Your task to perform on an android device: toggle translation in the chrome app Image 0: 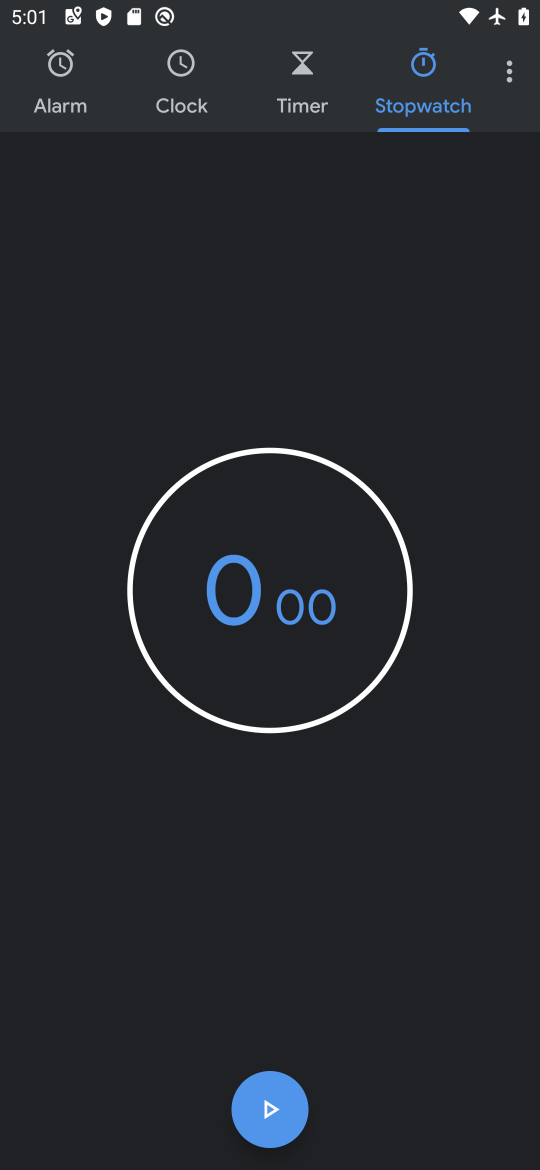
Step 0: press home button
Your task to perform on an android device: toggle translation in the chrome app Image 1: 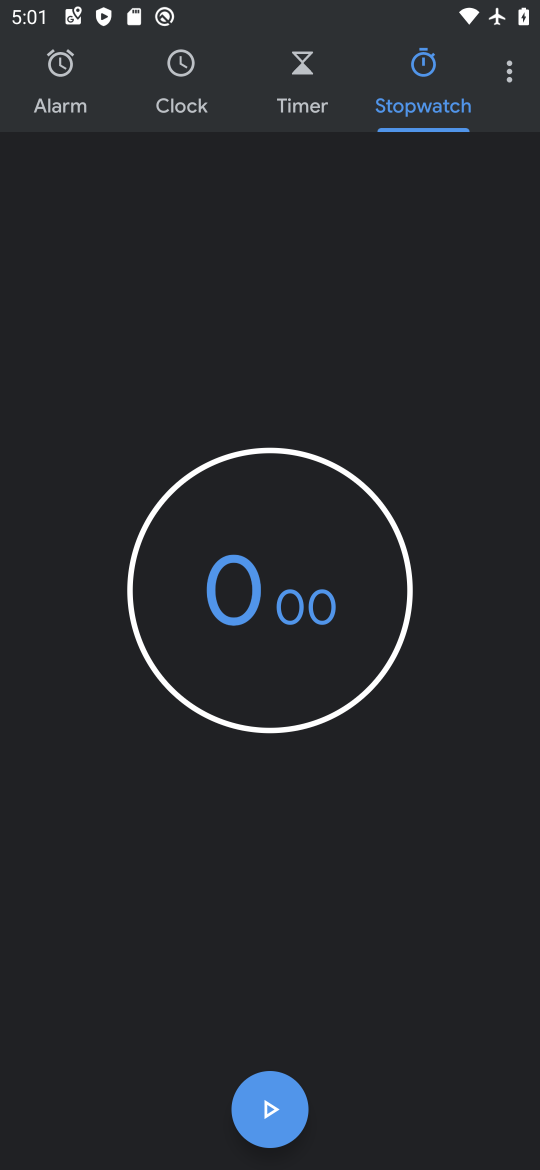
Step 1: press home button
Your task to perform on an android device: toggle translation in the chrome app Image 2: 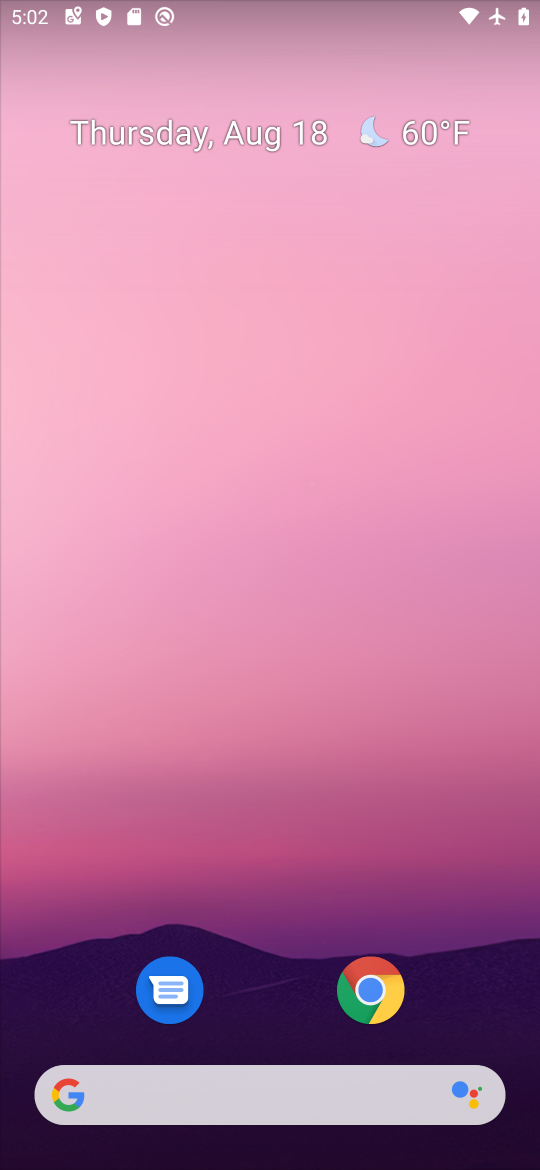
Step 2: drag from (246, 1023) to (358, 192)
Your task to perform on an android device: toggle translation in the chrome app Image 3: 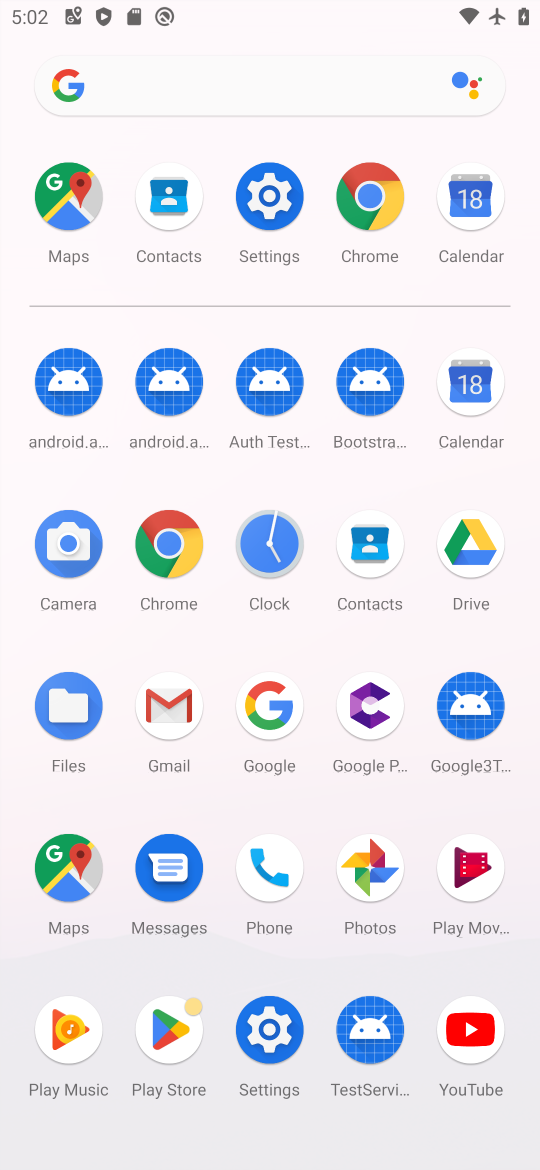
Step 3: click (170, 542)
Your task to perform on an android device: toggle translation in the chrome app Image 4: 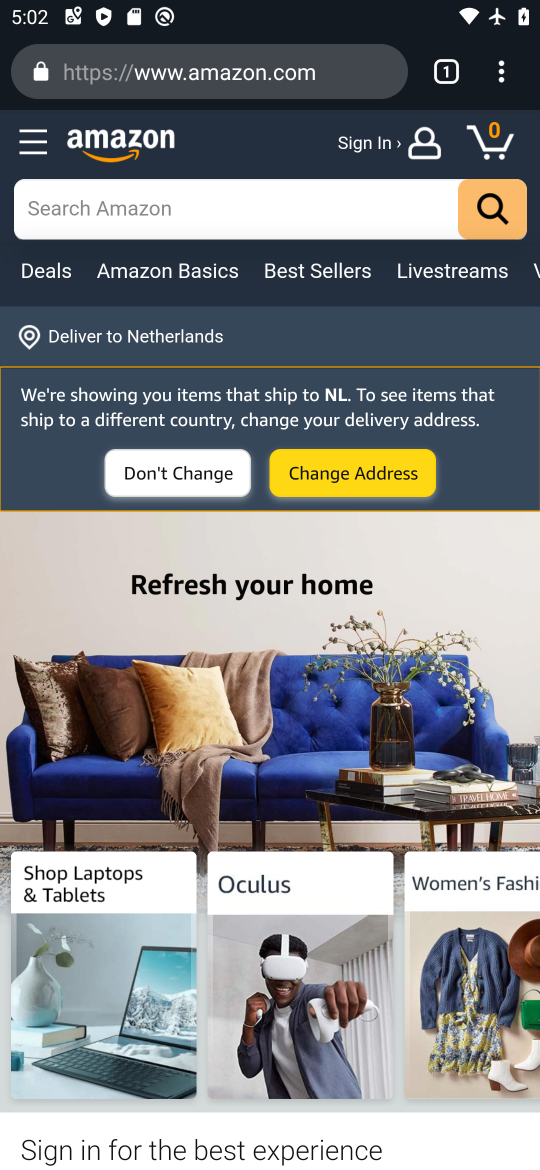
Step 4: click (499, 66)
Your task to perform on an android device: toggle translation in the chrome app Image 5: 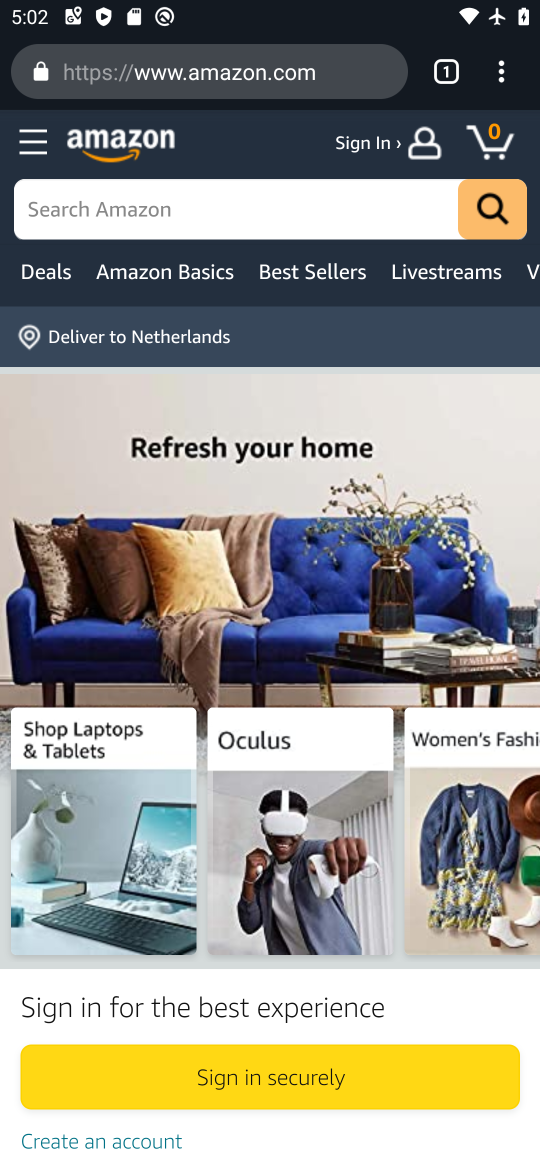
Step 5: drag from (498, 75) to (274, 883)
Your task to perform on an android device: toggle translation in the chrome app Image 6: 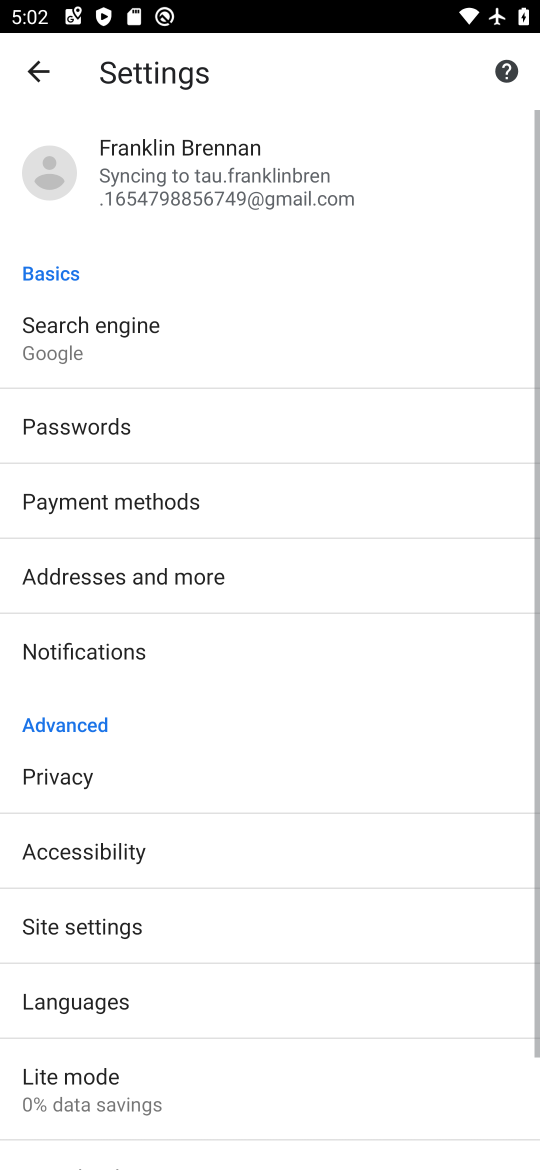
Step 6: drag from (235, 1040) to (323, 293)
Your task to perform on an android device: toggle translation in the chrome app Image 7: 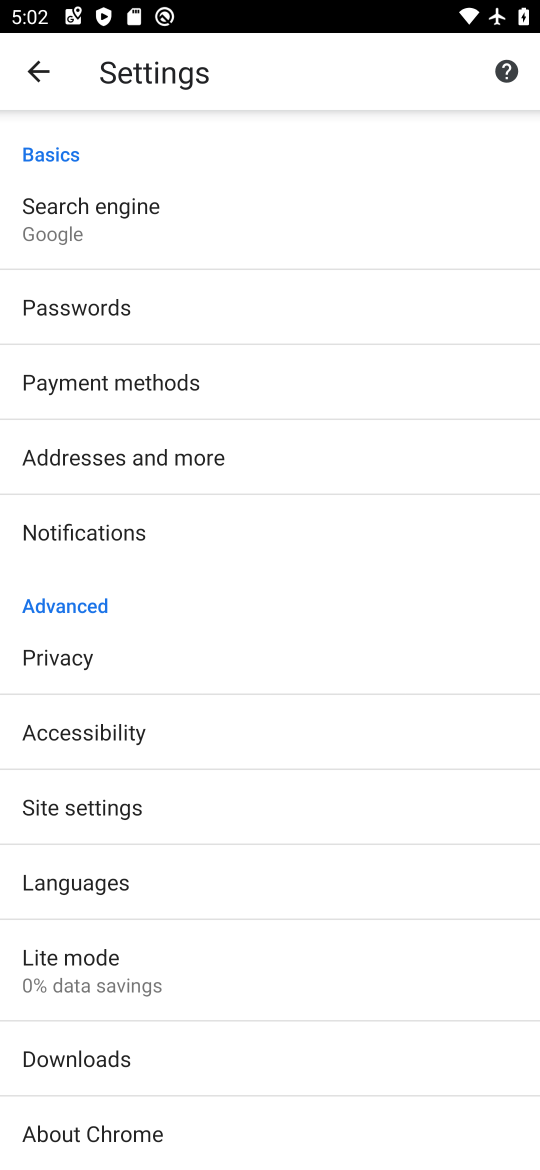
Step 7: click (92, 876)
Your task to perform on an android device: toggle translation in the chrome app Image 8: 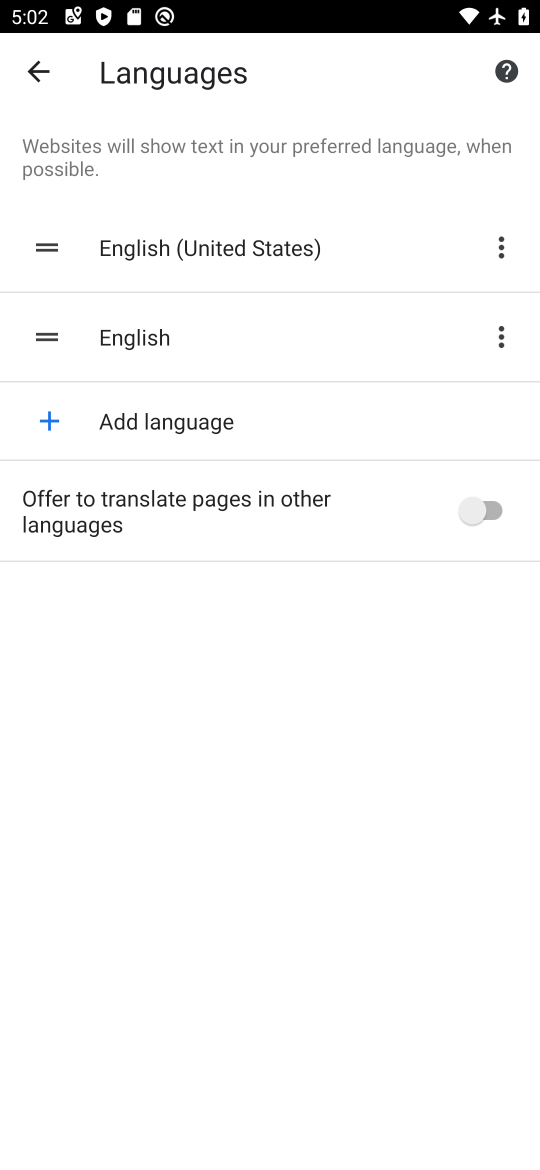
Step 8: click (476, 501)
Your task to perform on an android device: toggle translation in the chrome app Image 9: 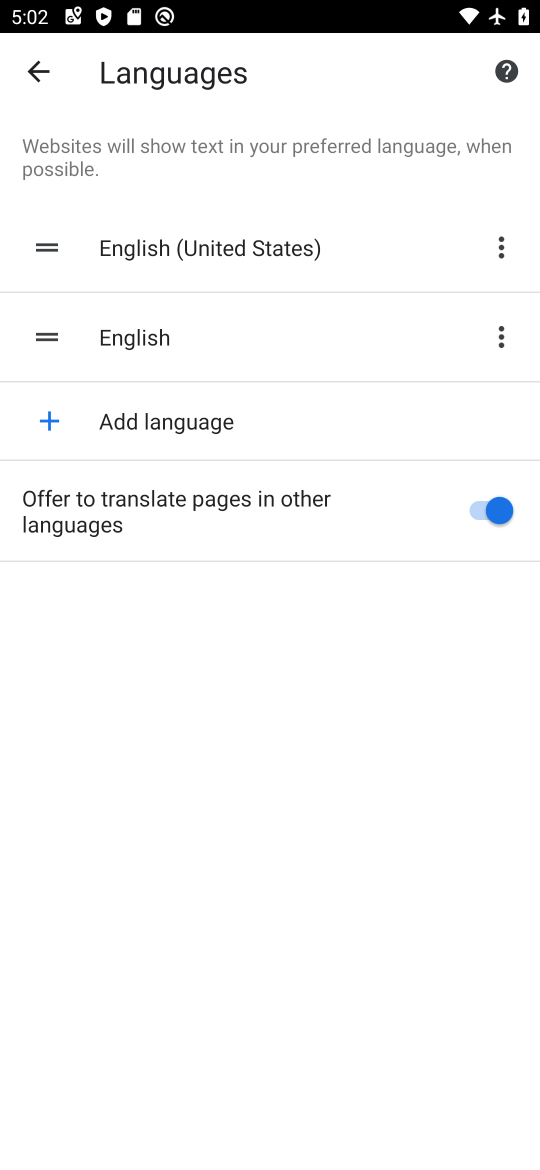
Step 9: task complete